Your task to perform on an android device: Go to Yahoo.com Image 0: 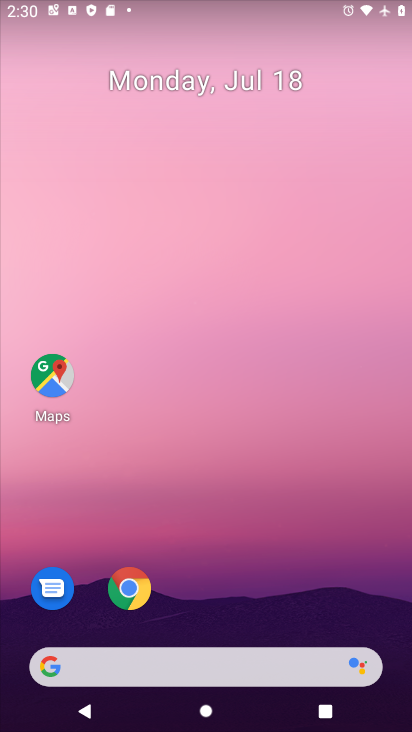
Step 0: drag from (249, 667) to (268, 269)
Your task to perform on an android device: Go to Yahoo.com Image 1: 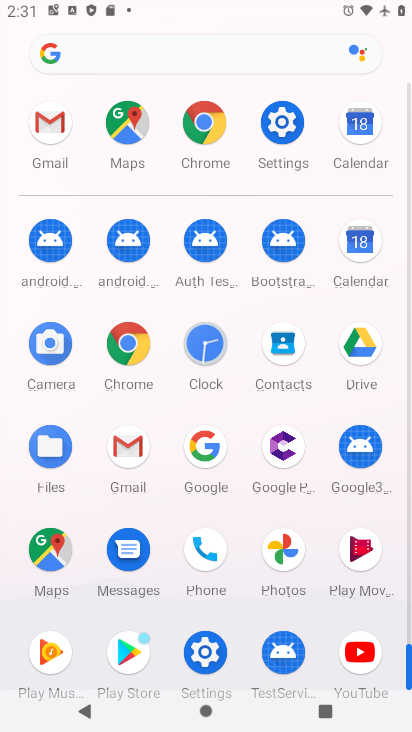
Step 1: click (205, 151)
Your task to perform on an android device: Go to Yahoo.com Image 2: 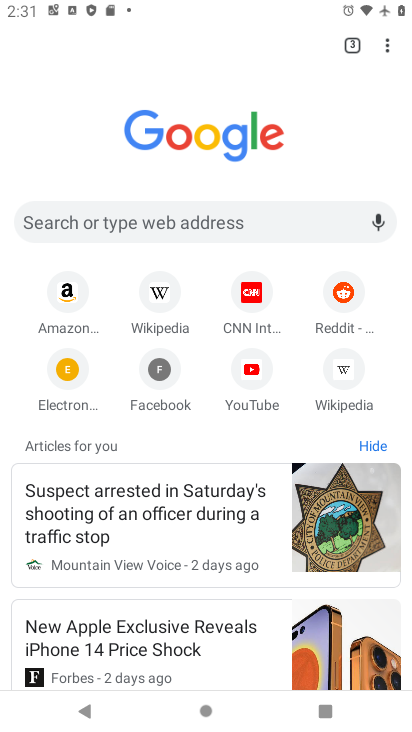
Step 2: click (190, 227)
Your task to perform on an android device: Go to Yahoo.com Image 3: 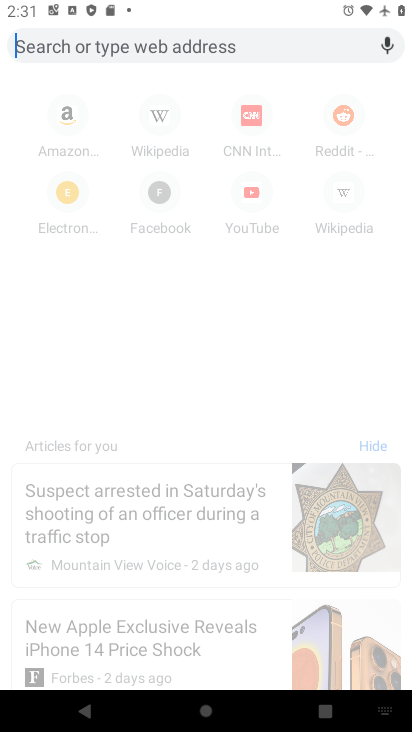
Step 3: type "yahoo"
Your task to perform on an android device: Go to Yahoo.com Image 4: 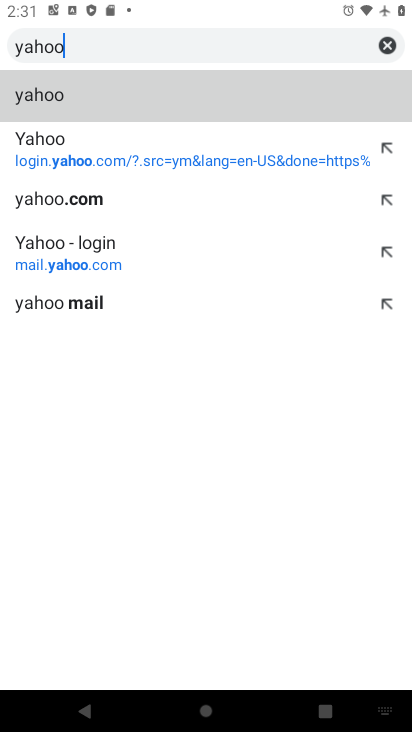
Step 4: click (105, 162)
Your task to perform on an android device: Go to Yahoo.com Image 5: 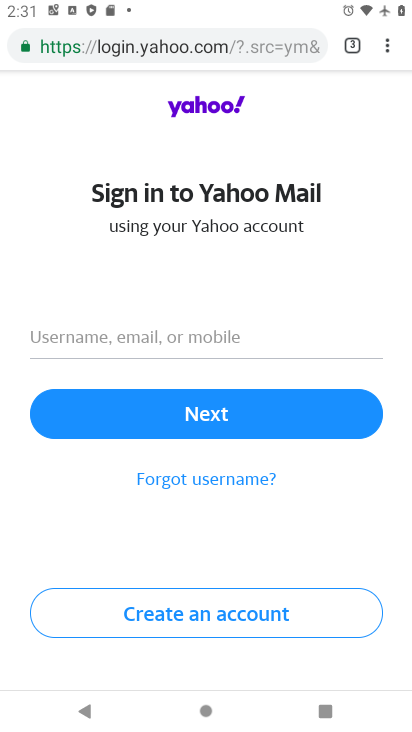
Step 5: task complete